Your task to perform on an android device: Open settings on Google Maps Image 0: 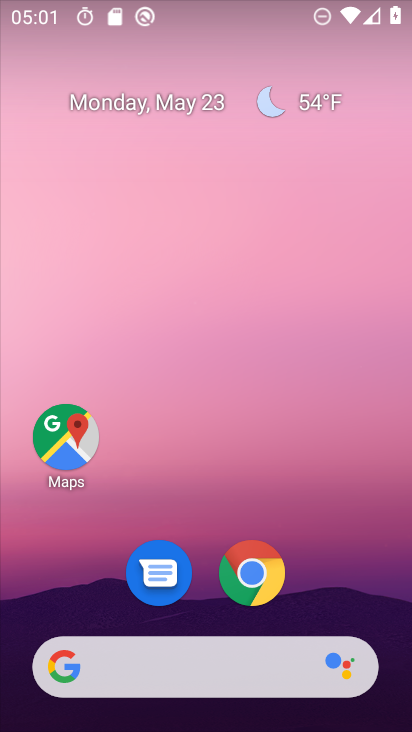
Step 0: click (71, 427)
Your task to perform on an android device: Open settings on Google Maps Image 1: 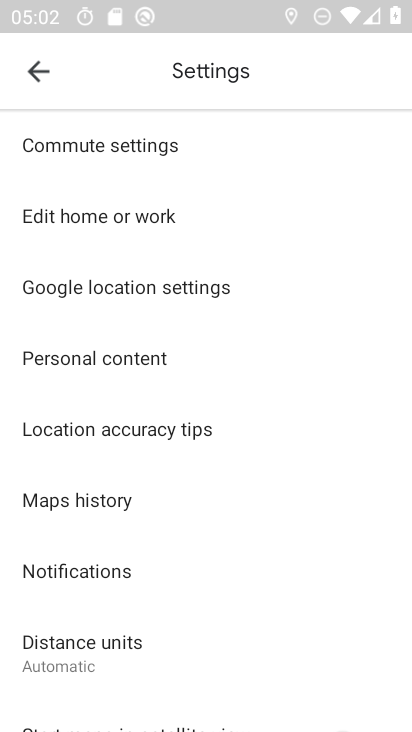
Step 1: task complete